Your task to perform on an android device: Open privacy settings Image 0: 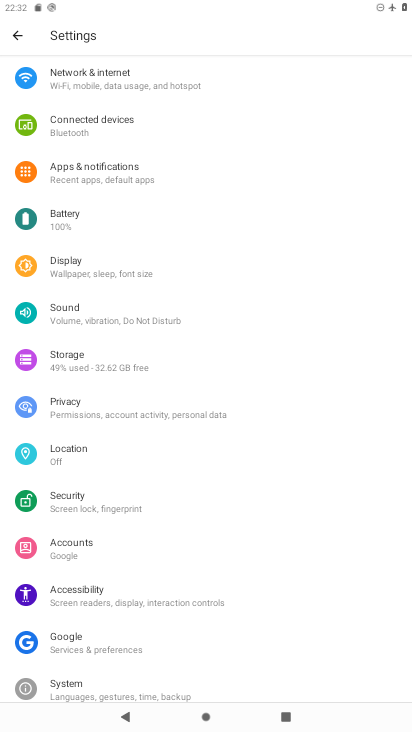
Step 0: click (130, 415)
Your task to perform on an android device: Open privacy settings Image 1: 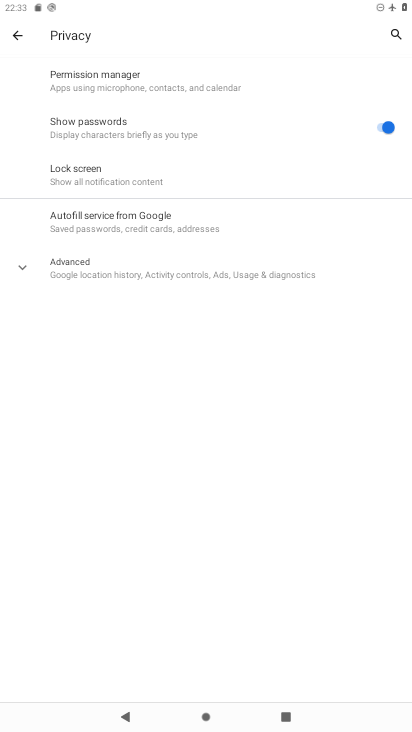
Step 1: task complete